Your task to perform on an android device: turn on priority inbox in the gmail app Image 0: 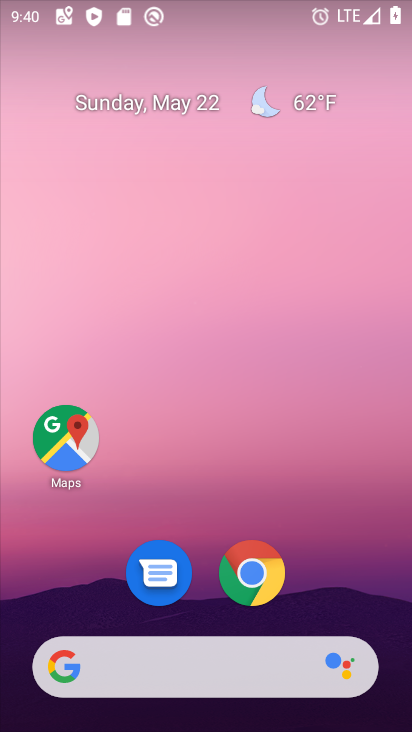
Step 0: drag from (145, 601) to (142, 145)
Your task to perform on an android device: turn on priority inbox in the gmail app Image 1: 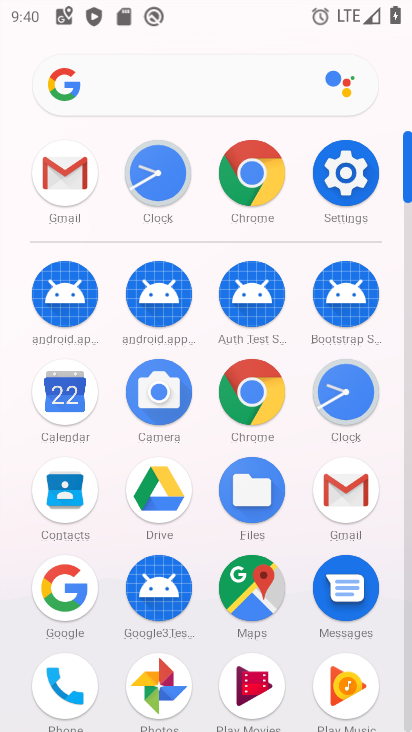
Step 1: click (334, 505)
Your task to perform on an android device: turn on priority inbox in the gmail app Image 2: 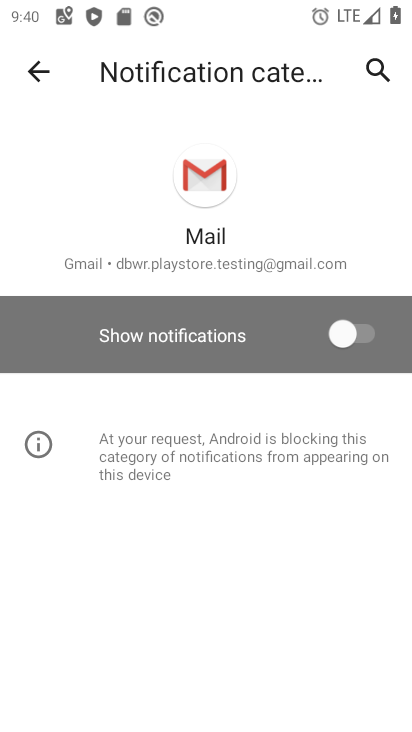
Step 2: task complete